Your task to perform on an android device: find which apps use the phone's location Image 0: 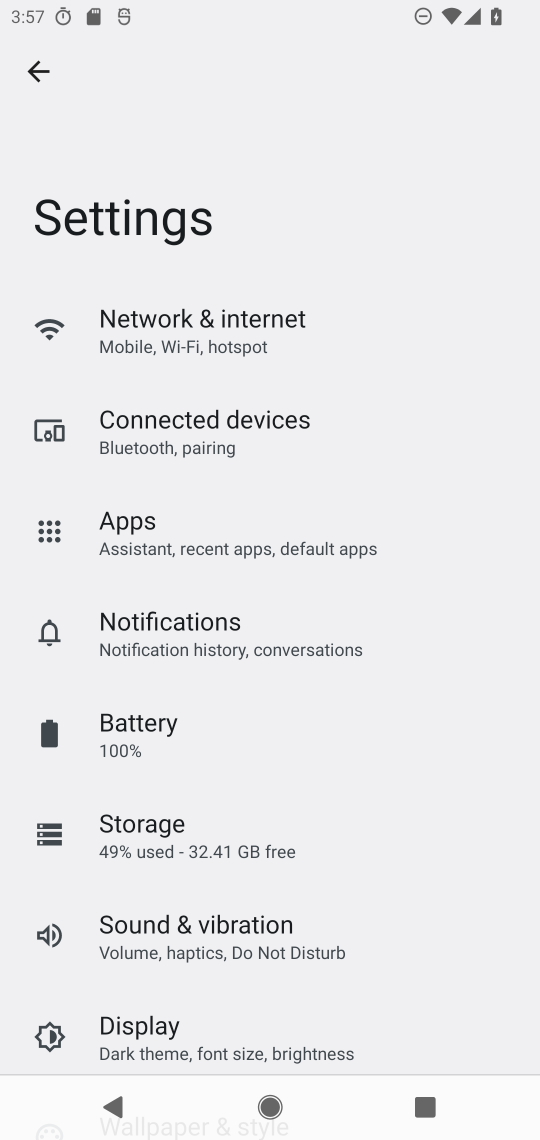
Step 0: drag from (222, 1010) to (316, 258)
Your task to perform on an android device: find which apps use the phone's location Image 1: 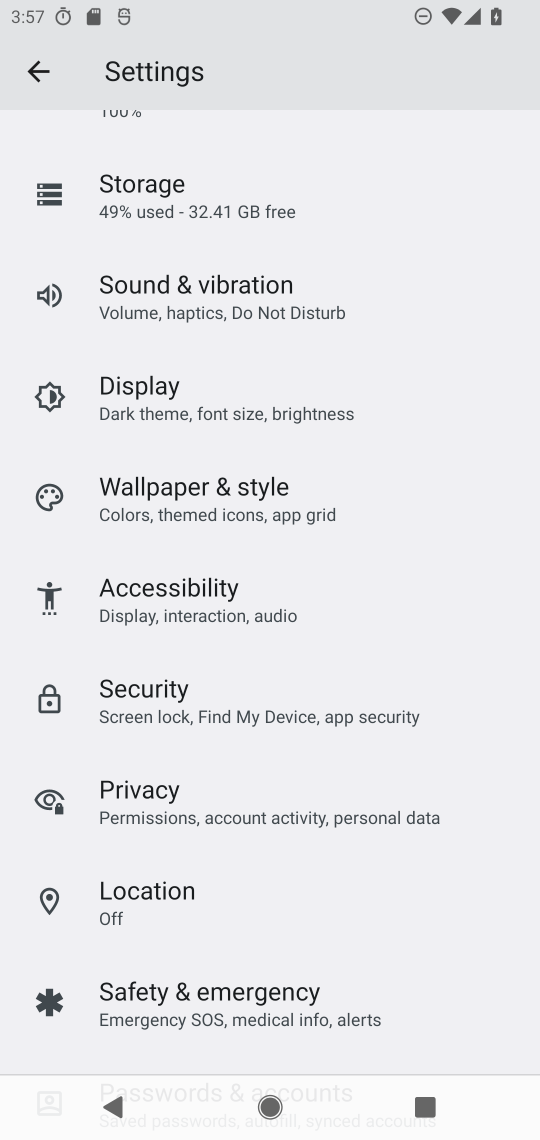
Step 1: click (195, 872)
Your task to perform on an android device: find which apps use the phone's location Image 2: 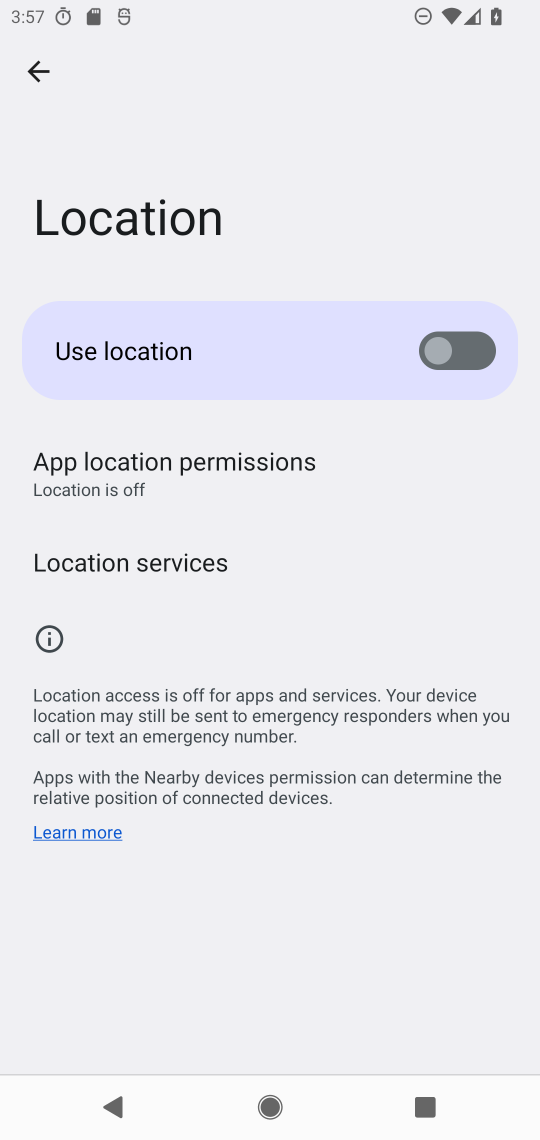
Step 2: task complete